Your task to perform on an android device: turn on sleep mode Image 0: 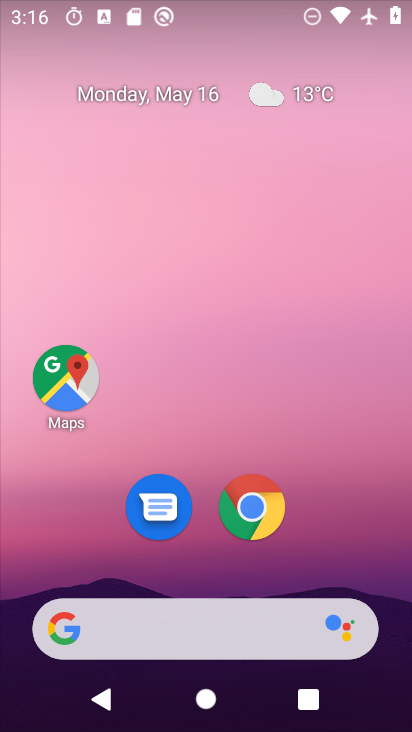
Step 0: drag from (270, 559) to (291, 215)
Your task to perform on an android device: turn on sleep mode Image 1: 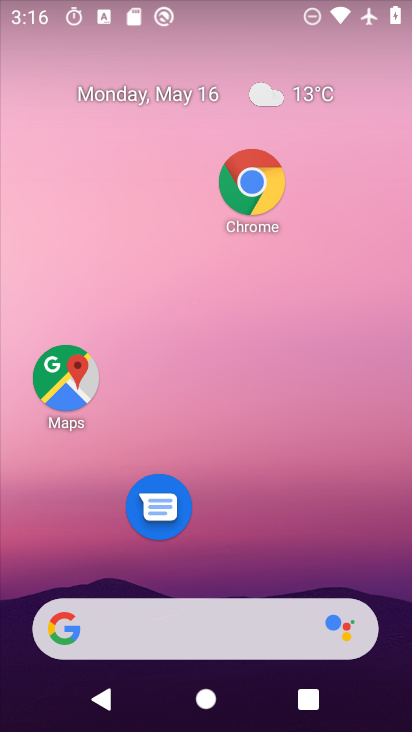
Step 1: click (196, 184)
Your task to perform on an android device: turn on sleep mode Image 2: 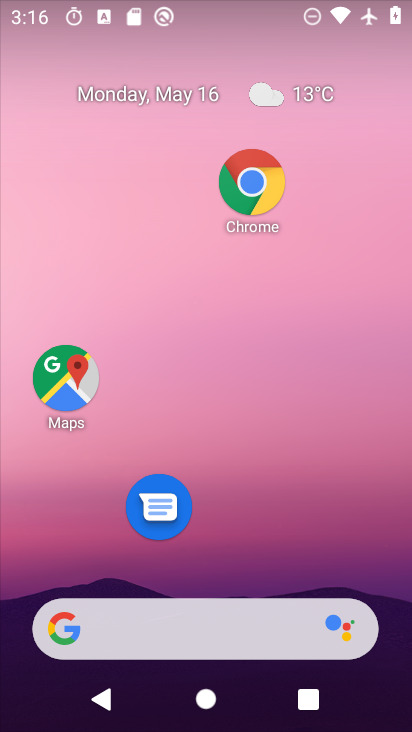
Step 2: drag from (189, 549) to (190, 102)
Your task to perform on an android device: turn on sleep mode Image 3: 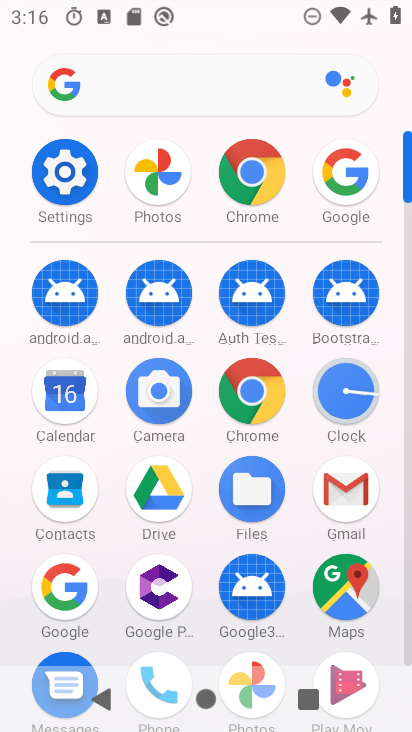
Step 3: click (74, 198)
Your task to perform on an android device: turn on sleep mode Image 4: 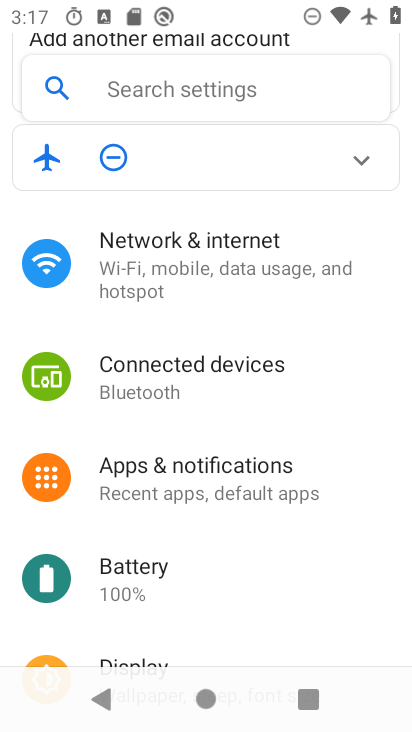
Step 4: task complete